Your task to perform on an android device: turn smart compose on in the gmail app Image 0: 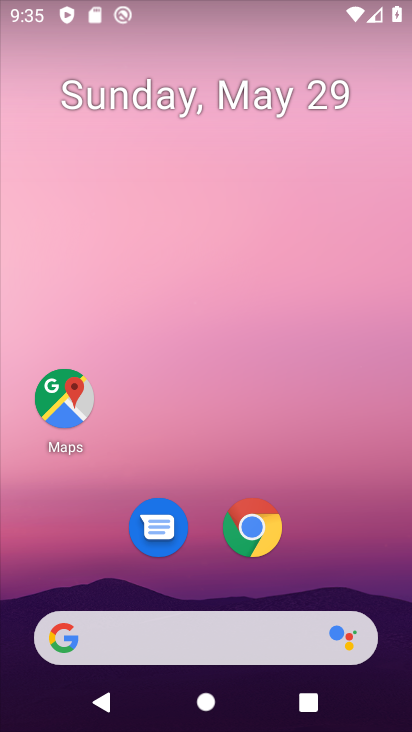
Step 0: drag from (358, 478) to (352, 96)
Your task to perform on an android device: turn smart compose on in the gmail app Image 1: 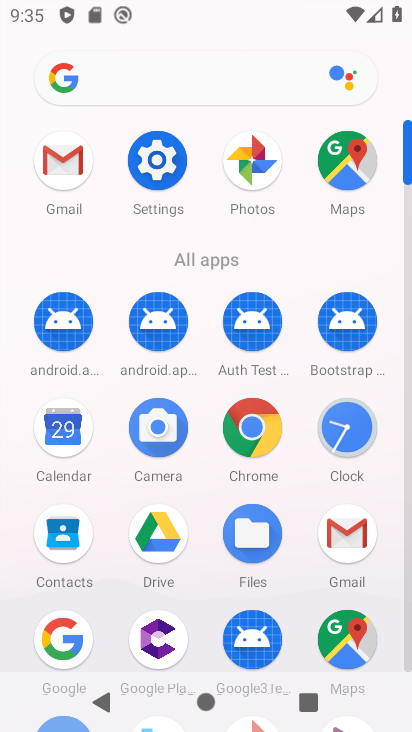
Step 1: click (66, 166)
Your task to perform on an android device: turn smart compose on in the gmail app Image 2: 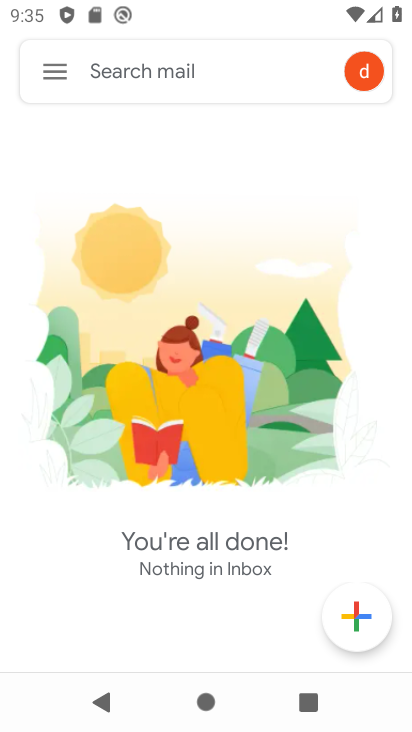
Step 2: click (59, 63)
Your task to perform on an android device: turn smart compose on in the gmail app Image 3: 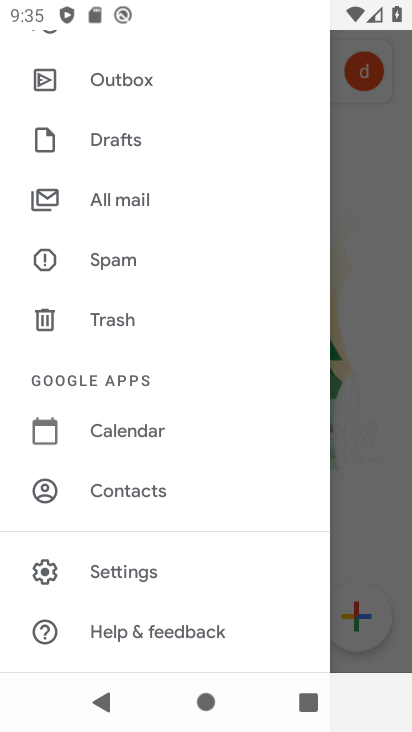
Step 3: click (144, 570)
Your task to perform on an android device: turn smart compose on in the gmail app Image 4: 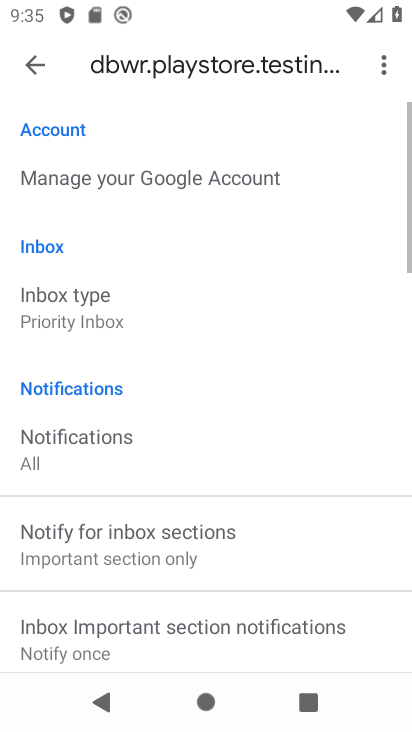
Step 4: task complete